Your task to perform on an android device: turn off smart reply in the gmail app Image 0: 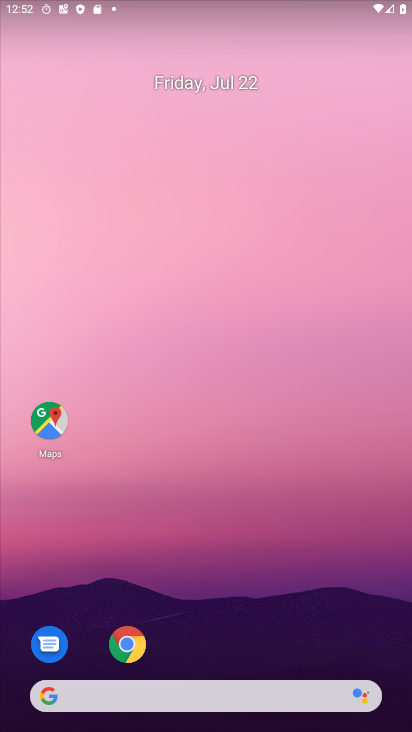
Step 0: drag from (239, 703) to (201, 66)
Your task to perform on an android device: turn off smart reply in the gmail app Image 1: 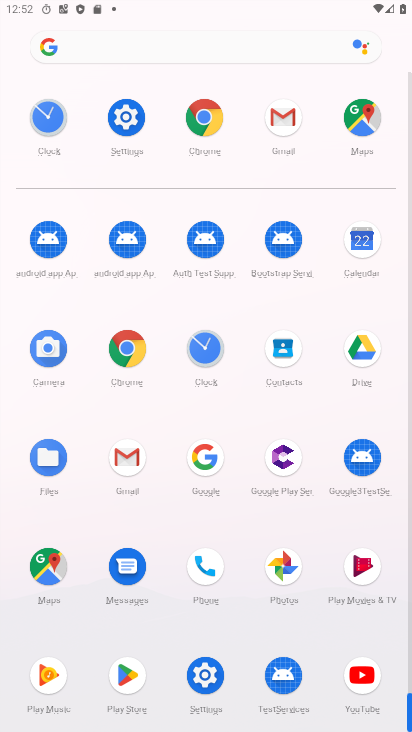
Step 1: click (280, 114)
Your task to perform on an android device: turn off smart reply in the gmail app Image 2: 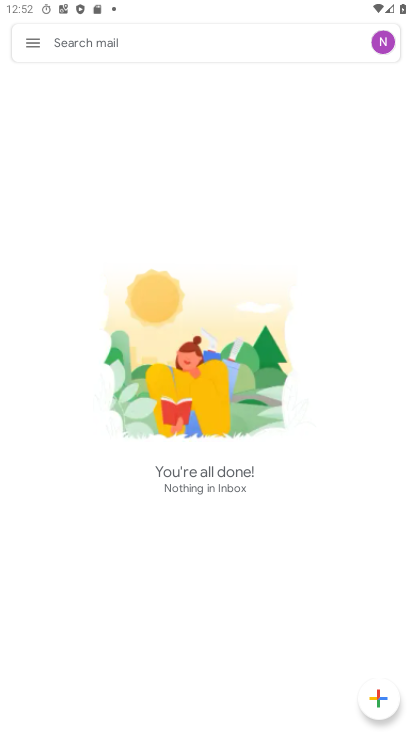
Step 2: click (35, 38)
Your task to perform on an android device: turn off smart reply in the gmail app Image 3: 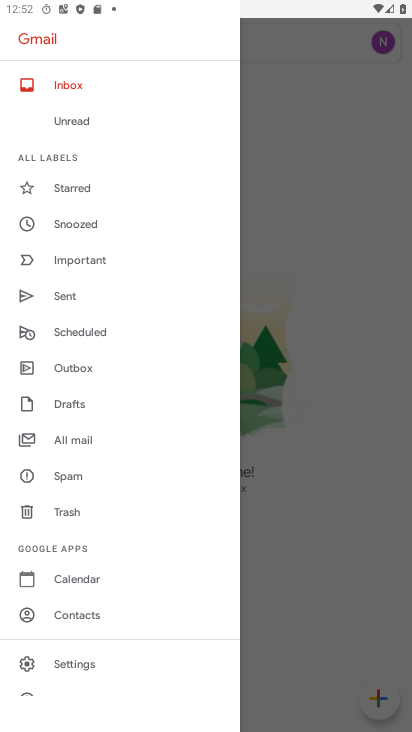
Step 3: click (61, 662)
Your task to perform on an android device: turn off smart reply in the gmail app Image 4: 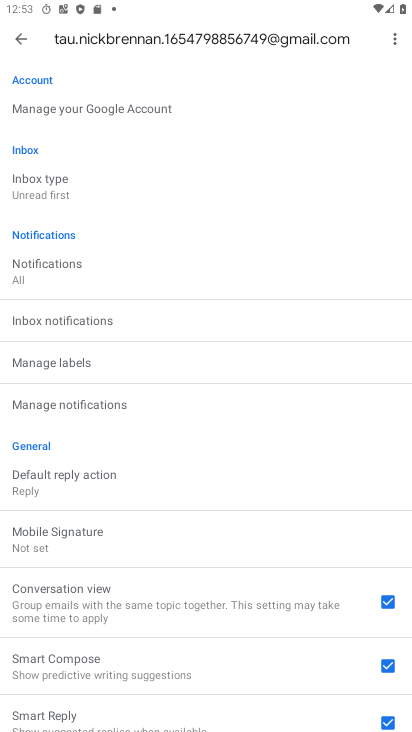
Step 4: drag from (64, 561) to (79, 236)
Your task to perform on an android device: turn off smart reply in the gmail app Image 5: 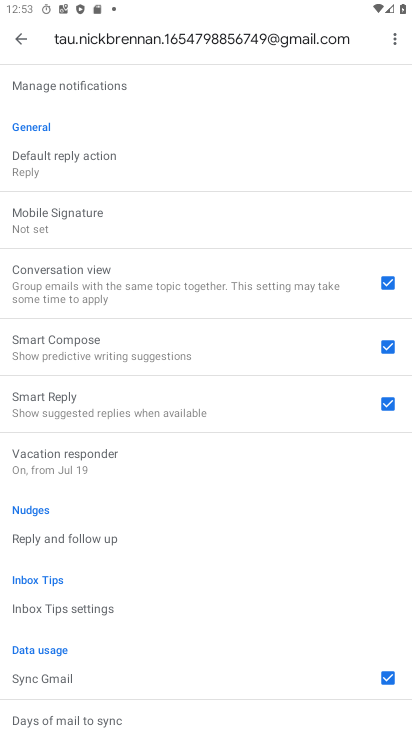
Step 5: click (381, 400)
Your task to perform on an android device: turn off smart reply in the gmail app Image 6: 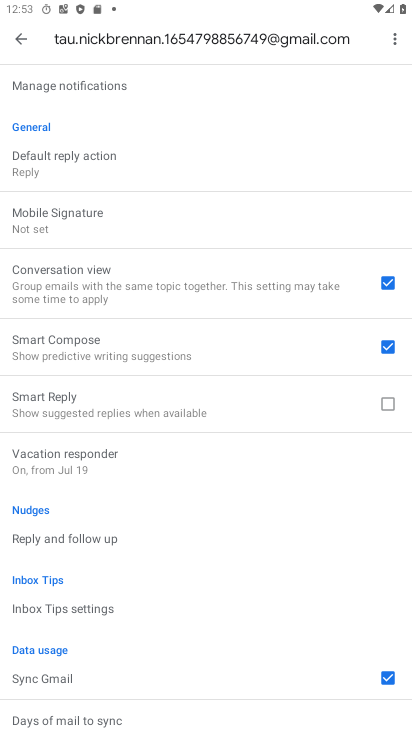
Step 6: task complete